Your task to perform on an android device: change notification settings in the gmail app Image 0: 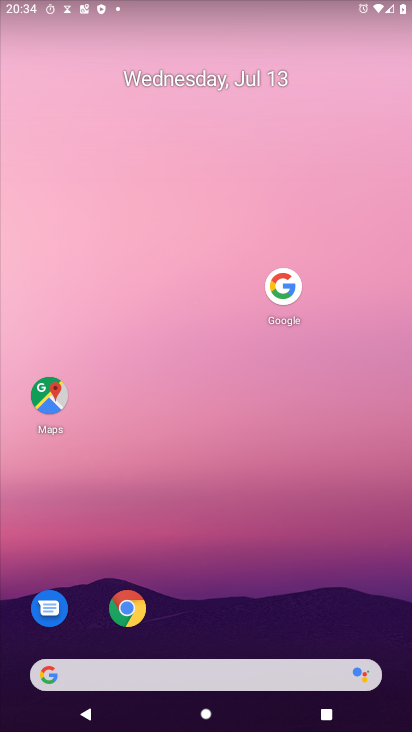
Step 0: drag from (206, 633) to (186, 37)
Your task to perform on an android device: change notification settings in the gmail app Image 1: 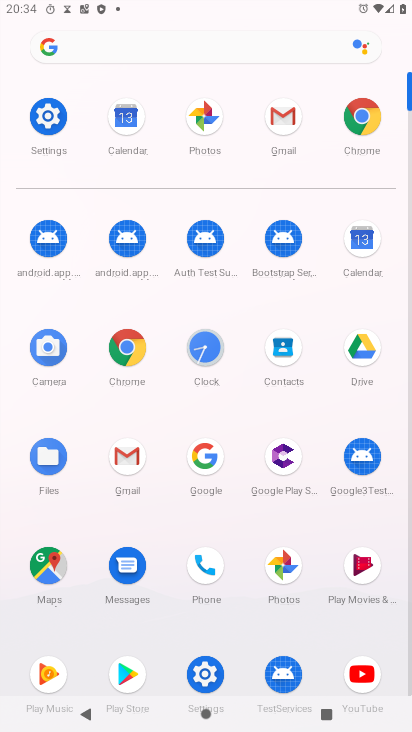
Step 1: click (130, 455)
Your task to perform on an android device: change notification settings in the gmail app Image 2: 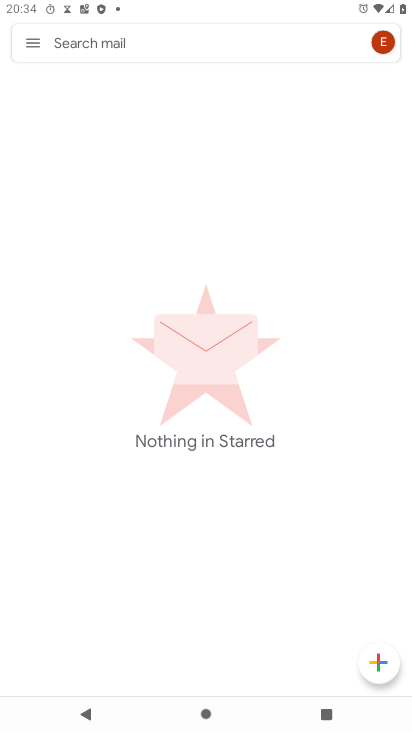
Step 2: drag from (31, 32) to (47, 256)
Your task to perform on an android device: change notification settings in the gmail app Image 3: 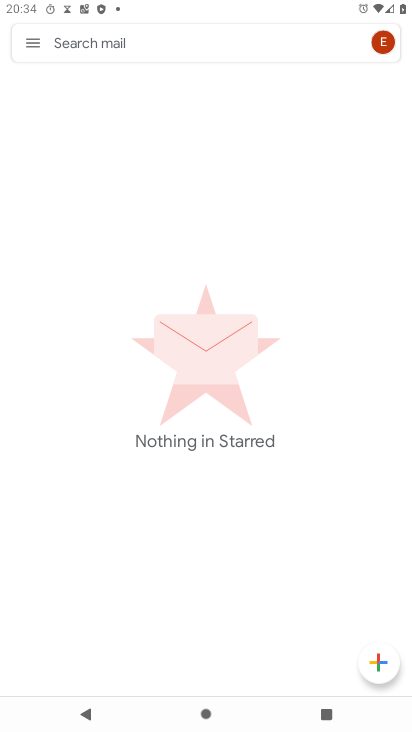
Step 3: click (32, 39)
Your task to perform on an android device: change notification settings in the gmail app Image 4: 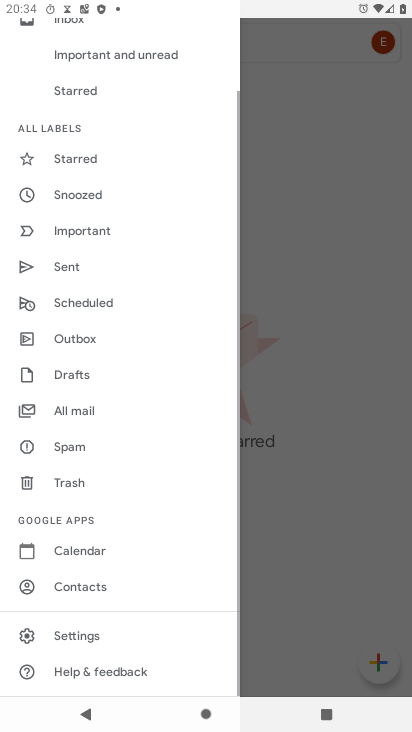
Step 4: click (56, 623)
Your task to perform on an android device: change notification settings in the gmail app Image 5: 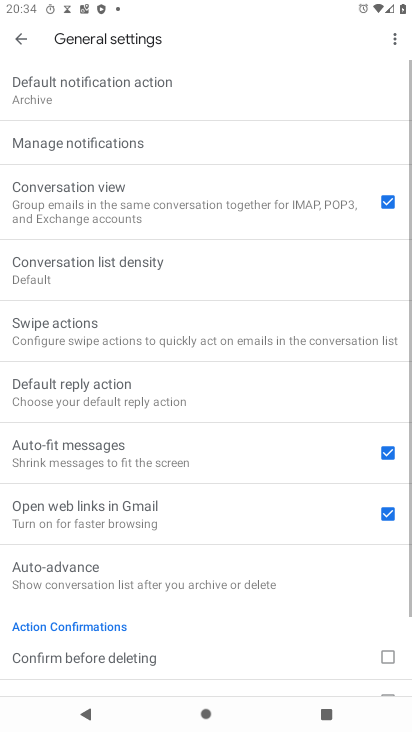
Step 5: click (95, 151)
Your task to perform on an android device: change notification settings in the gmail app Image 6: 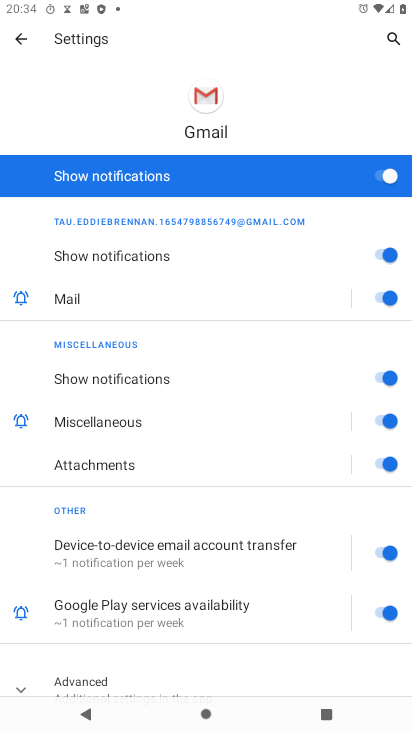
Step 6: click (391, 179)
Your task to perform on an android device: change notification settings in the gmail app Image 7: 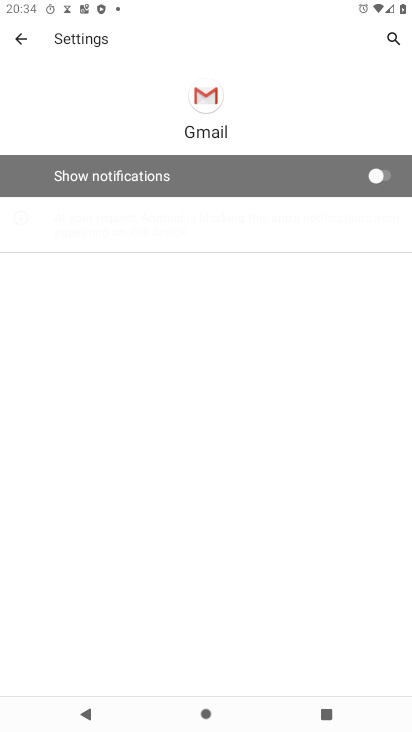
Step 7: task complete